Your task to perform on an android device: Is it going to rain this weekend? Image 0: 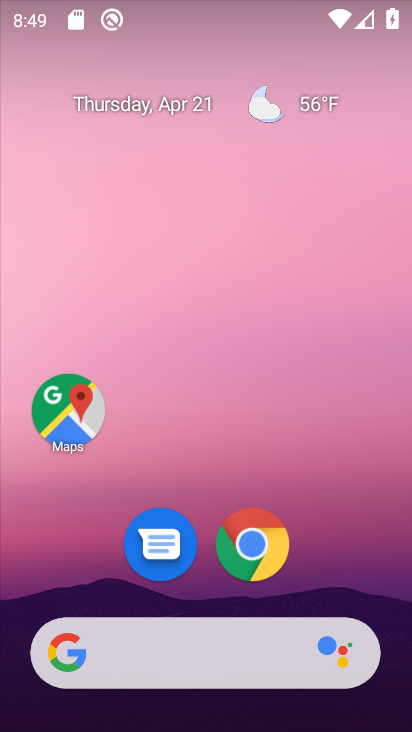
Step 0: click (263, 106)
Your task to perform on an android device: Is it going to rain this weekend? Image 1: 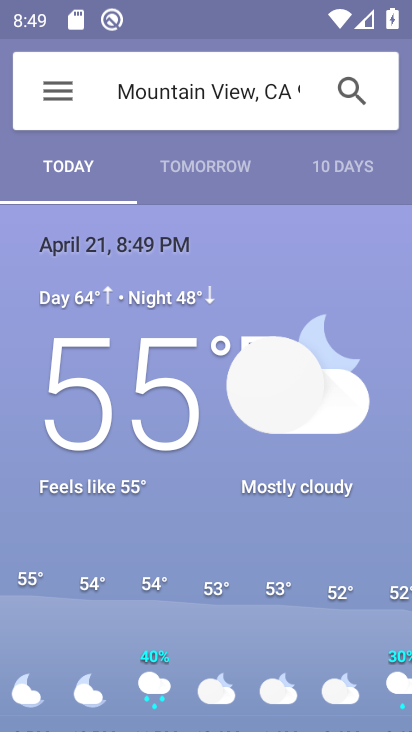
Step 1: click (339, 165)
Your task to perform on an android device: Is it going to rain this weekend? Image 2: 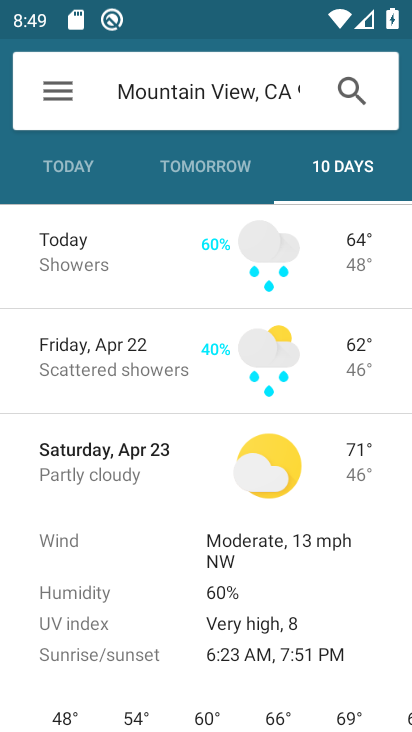
Step 2: task complete